Your task to perform on an android device: clear all cookies in the chrome app Image 0: 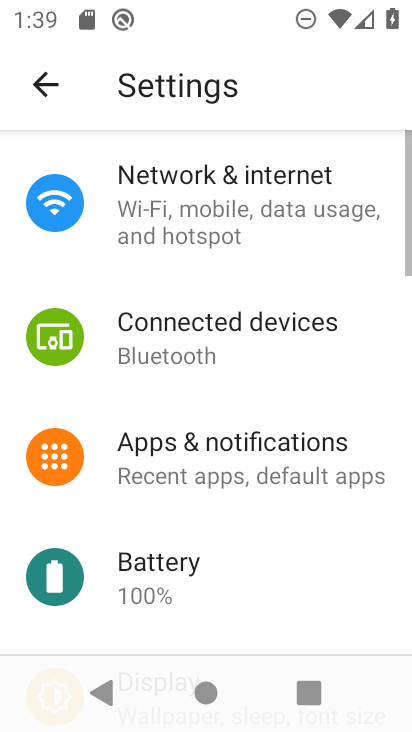
Step 0: press home button
Your task to perform on an android device: clear all cookies in the chrome app Image 1: 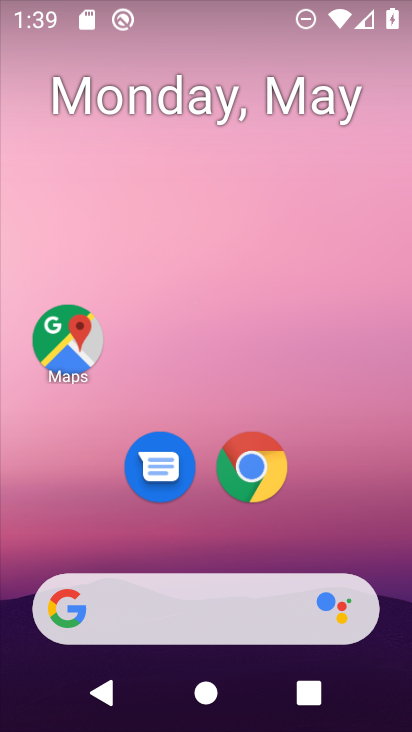
Step 1: drag from (99, 566) to (210, 57)
Your task to perform on an android device: clear all cookies in the chrome app Image 2: 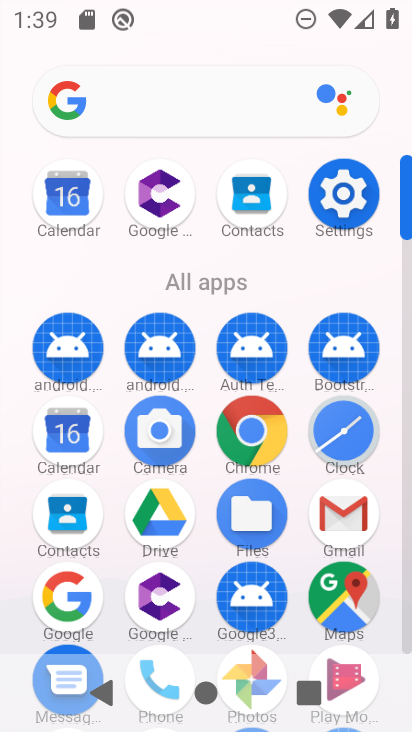
Step 2: click (243, 432)
Your task to perform on an android device: clear all cookies in the chrome app Image 3: 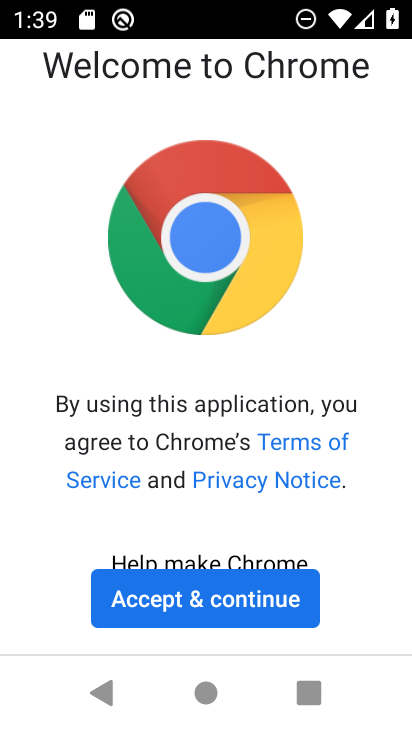
Step 3: click (259, 596)
Your task to perform on an android device: clear all cookies in the chrome app Image 4: 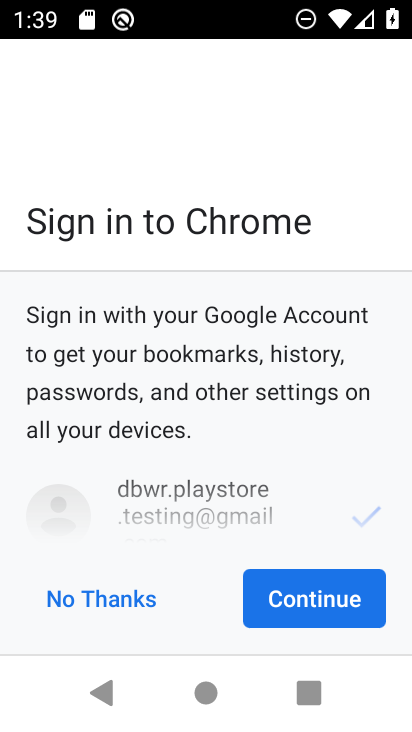
Step 4: click (269, 597)
Your task to perform on an android device: clear all cookies in the chrome app Image 5: 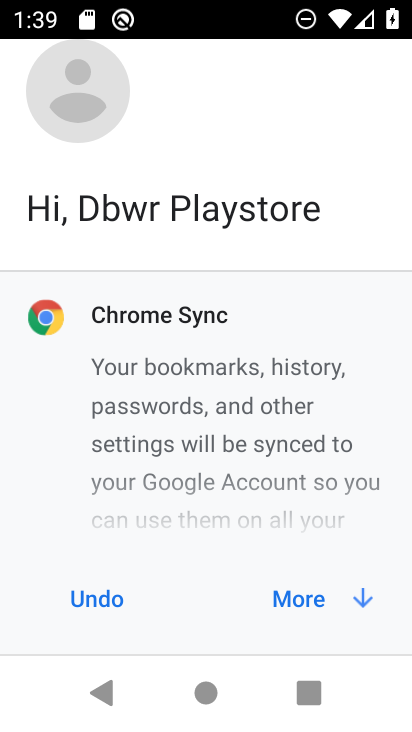
Step 5: click (269, 597)
Your task to perform on an android device: clear all cookies in the chrome app Image 6: 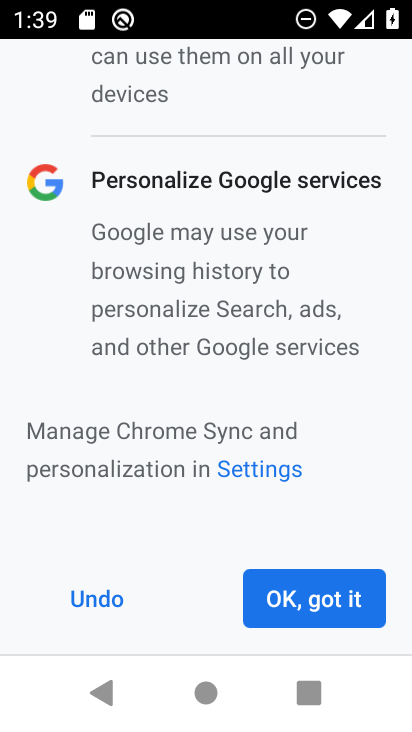
Step 6: click (283, 601)
Your task to perform on an android device: clear all cookies in the chrome app Image 7: 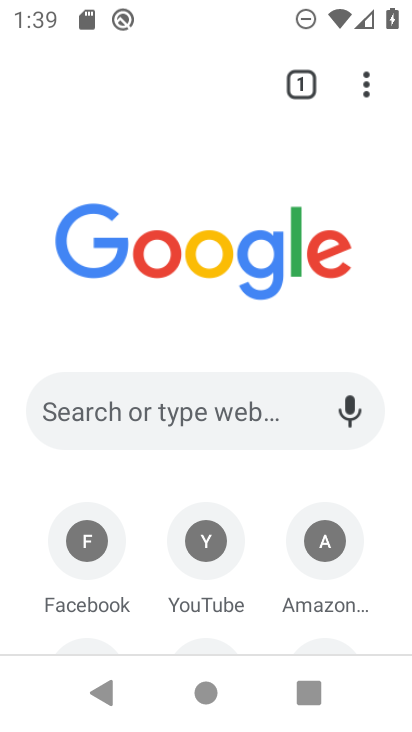
Step 7: drag from (372, 83) to (332, 535)
Your task to perform on an android device: clear all cookies in the chrome app Image 8: 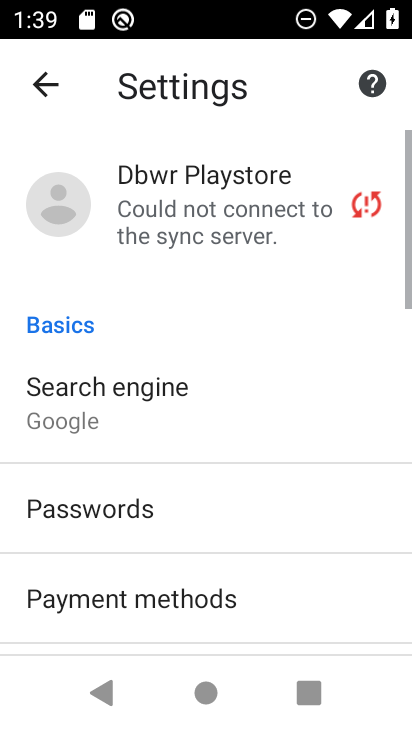
Step 8: drag from (199, 590) to (301, 210)
Your task to perform on an android device: clear all cookies in the chrome app Image 9: 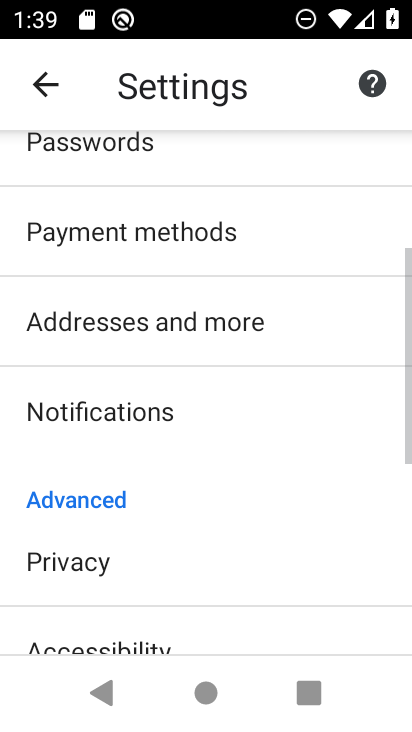
Step 9: drag from (202, 515) to (278, 292)
Your task to perform on an android device: clear all cookies in the chrome app Image 10: 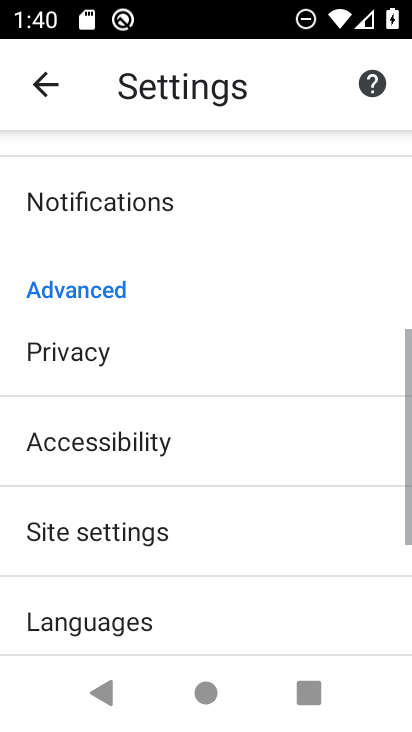
Step 10: click (180, 348)
Your task to perform on an android device: clear all cookies in the chrome app Image 11: 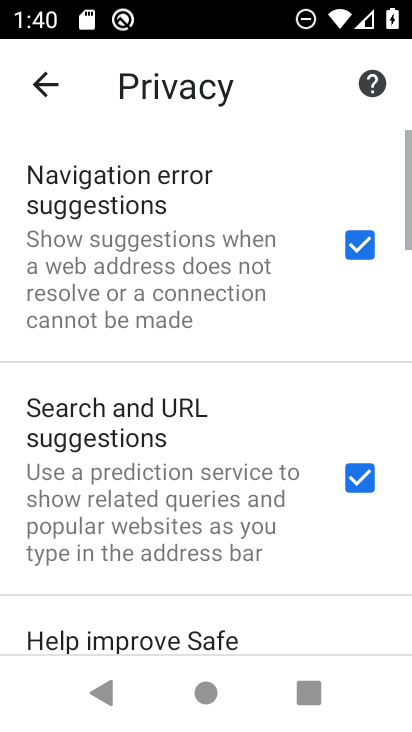
Step 11: drag from (95, 634) to (240, 193)
Your task to perform on an android device: clear all cookies in the chrome app Image 12: 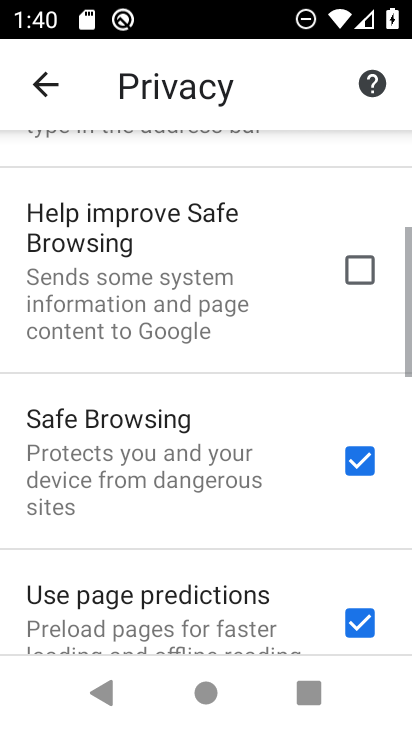
Step 12: drag from (194, 595) to (312, 216)
Your task to perform on an android device: clear all cookies in the chrome app Image 13: 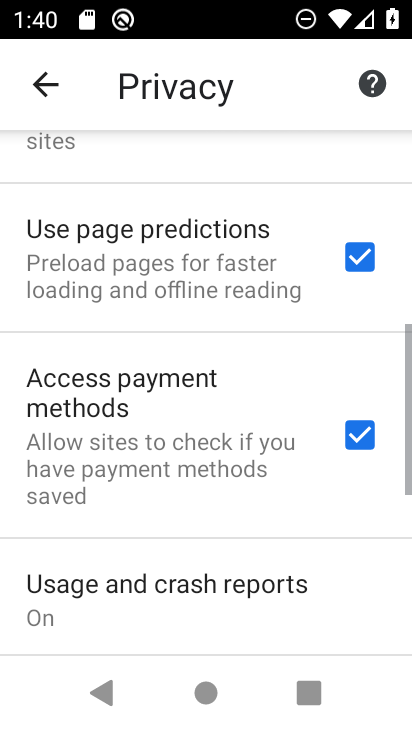
Step 13: drag from (208, 590) to (337, 139)
Your task to perform on an android device: clear all cookies in the chrome app Image 14: 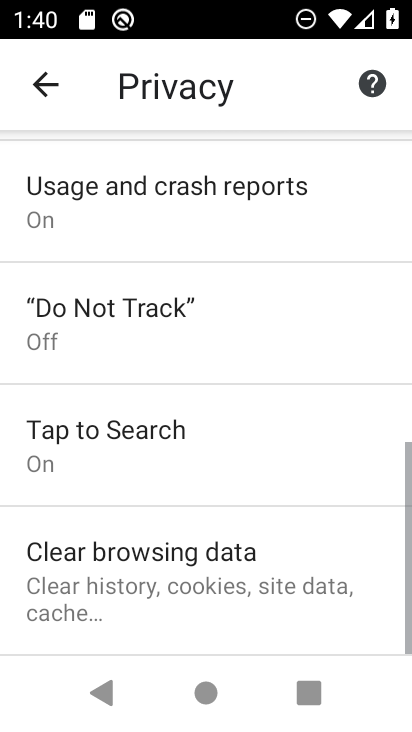
Step 14: click (211, 555)
Your task to perform on an android device: clear all cookies in the chrome app Image 15: 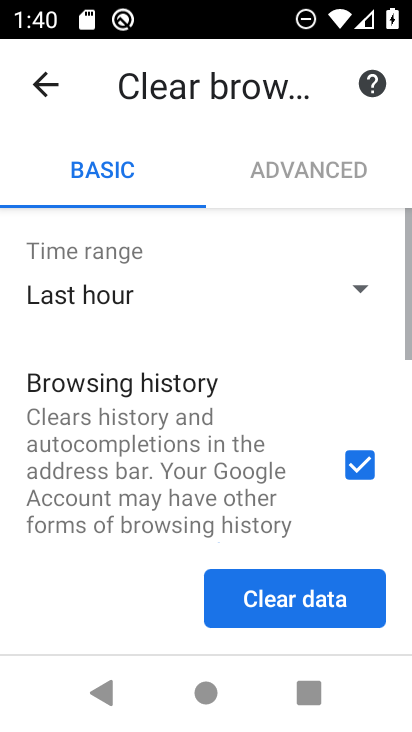
Step 15: drag from (178, 507) to (286, 228)
Your task to perform on an android device: clear all cookies in the chrome app Image 16: 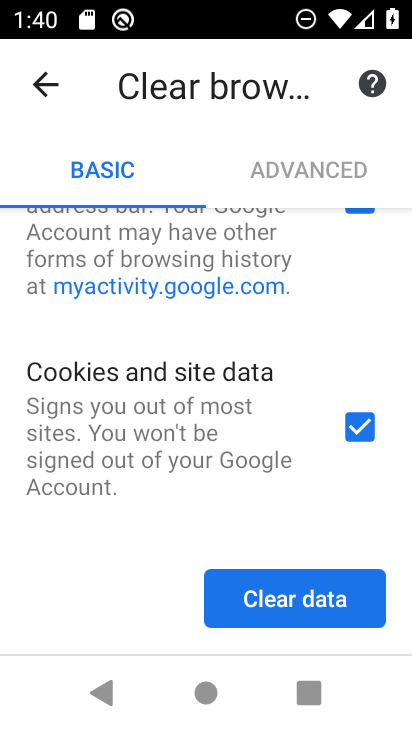
Step 16: click (361, 218)
Your task to perform on an android device: clear all cookies in the chrome app Image 17: 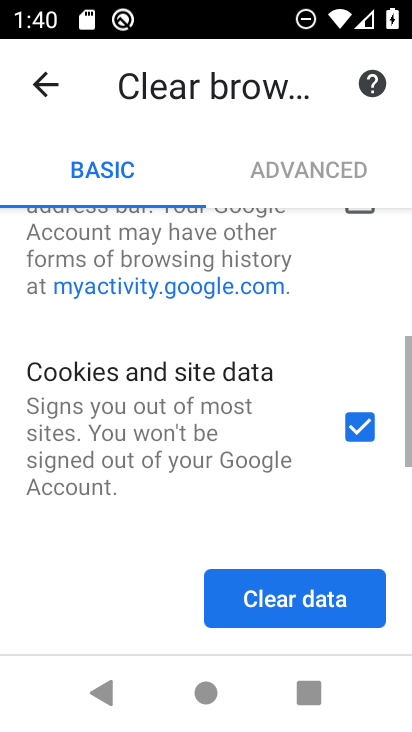
Step 17: drag from (155, 436) to (240, 190)
Your task to perform on an android device: clear all cookies in the chrome app Image 18: 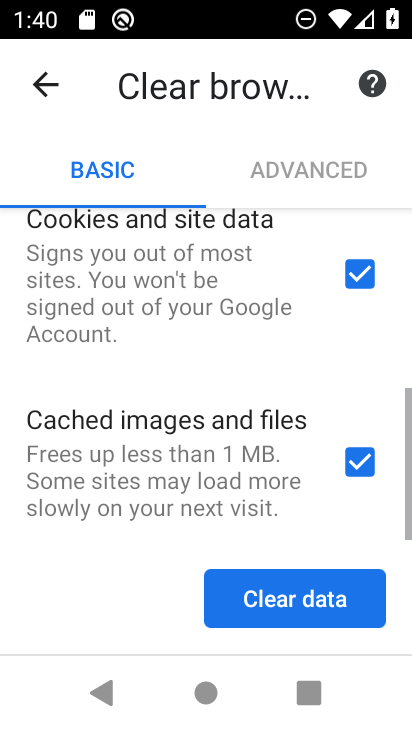
Step 18: click (362, 451)
Your task to perform on an android device: clear all cookies in the chrome app Image 19: 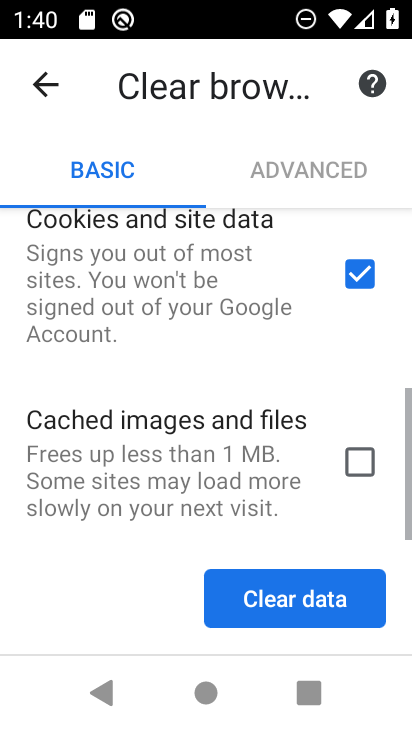
Step 19: click (343, 586)
Your task to perform on an android device: clear all cookies in the chrome app Image 20: 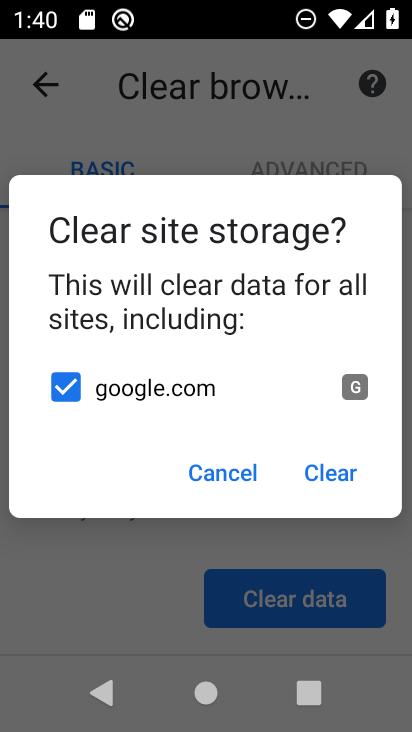
Step 20: click (352, 460)
Your task to perform on an android device: clear all cookies in the chrome app Image 21: 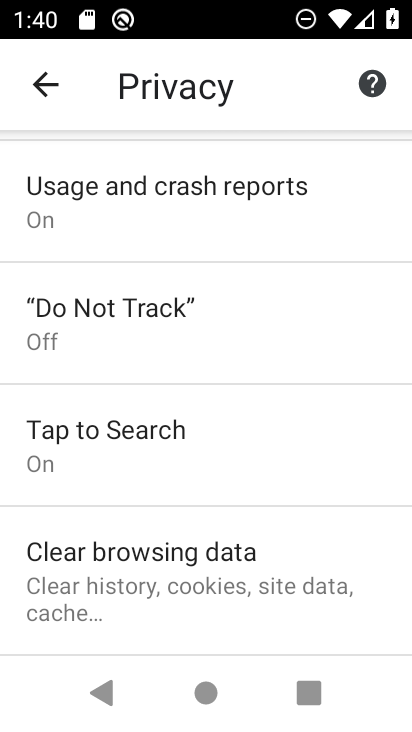
Step 21: task complete